Your task to perform on an android device: open a bookmark in the chrome app Image 0: 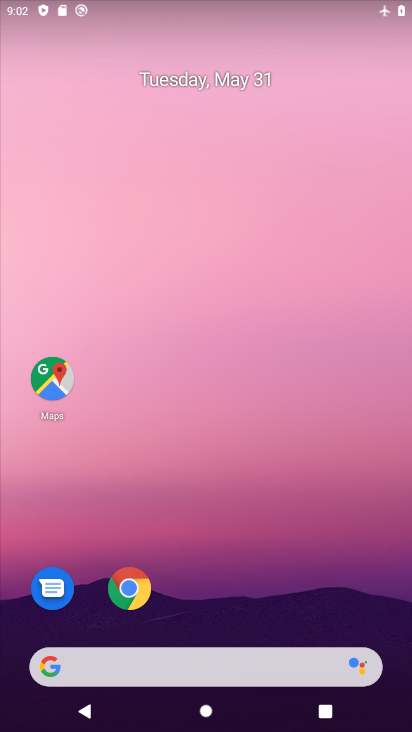
Step 0: click (123, 609)
Your task to perform on an android device: open a bookmark in the chrome app Image 1: 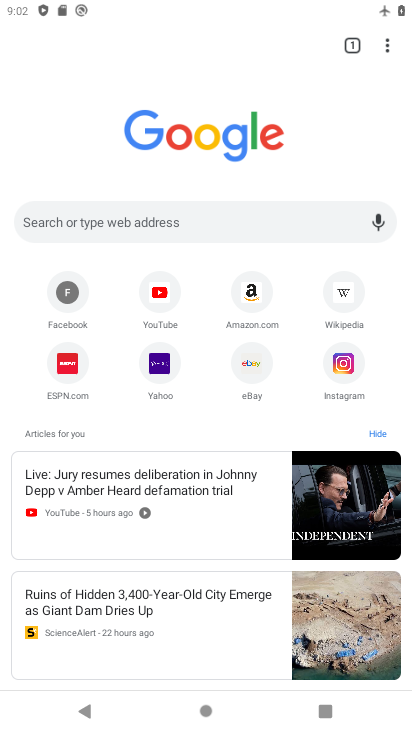
Step 1: click (385, 45)
Your task to perform on an android device: open a bookmark in the chrome app Image 2: 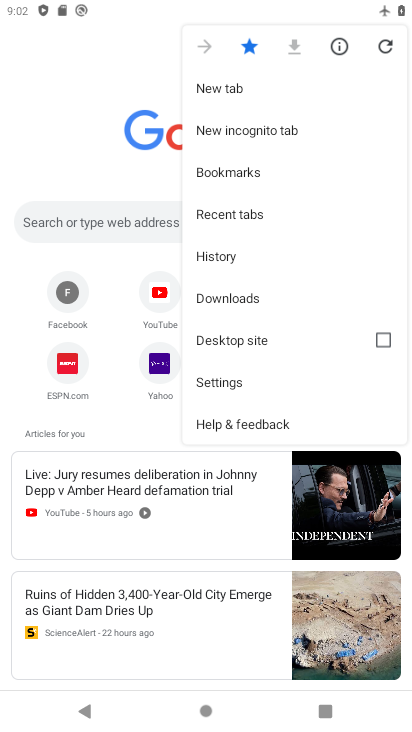
Step 2: click (266, 163)
Your task to perform on an android device: open a bookmark in the chrome app Image 3: 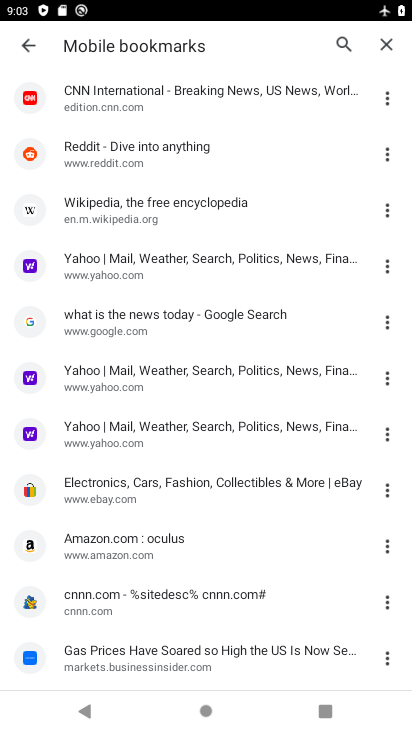
Step 3: click (168, 550)
Your task to perform on an android device: open a bookmark in the chrome app Image 4: 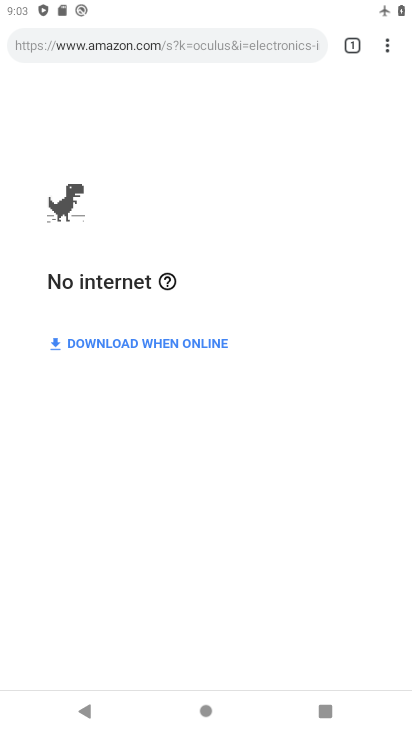
Step 4: task complete